Your task to perform on an android device: Go to accessibility settings Image 0: 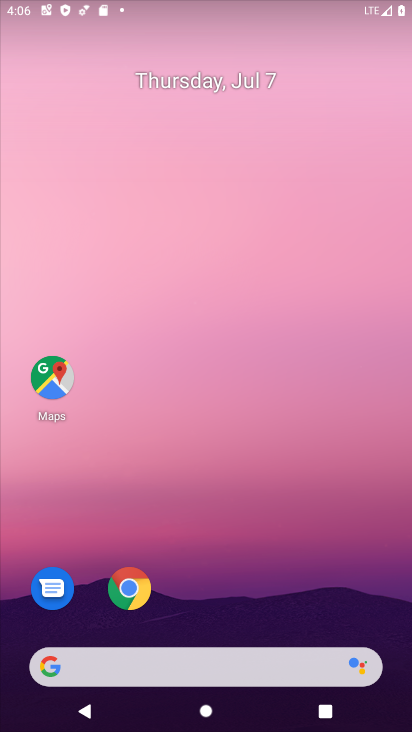
Step 0: press home button
Your task to perform on an android device: Go to accessibility settings Image 1: 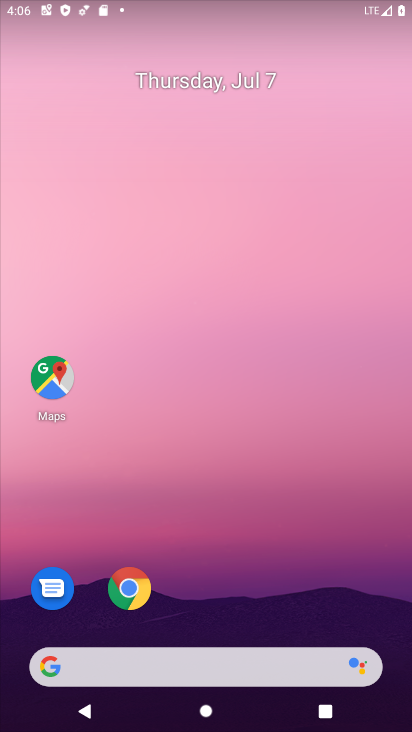
Step 1: drag from (265, 632) to (200, 122)
Your task to perform on an android device: Go to accessibility settings Image 2: 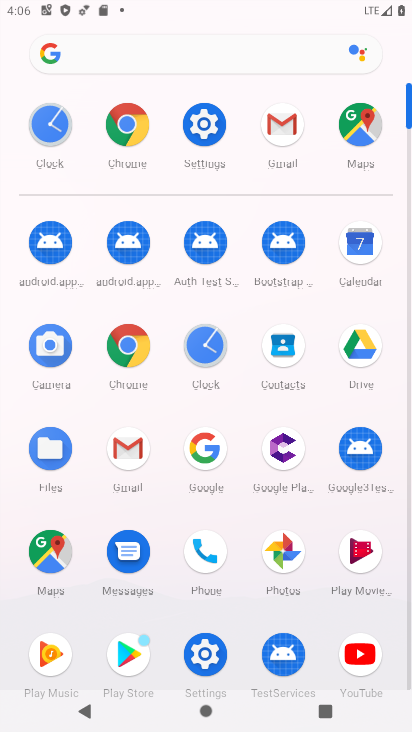
Step 2: click (205, 138)
Your task to perform on an android device: Go to accessibility settings Image 3: 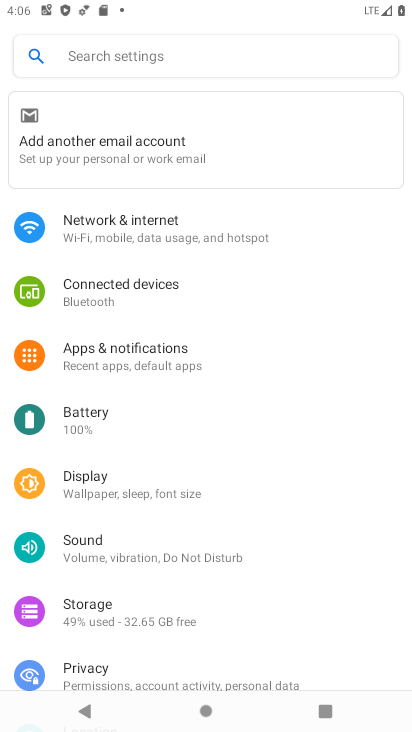
Step 3: drag from (217, 655) to (164, 222)
Your task to perform on an android device: Go to accessibility settings Image 4: 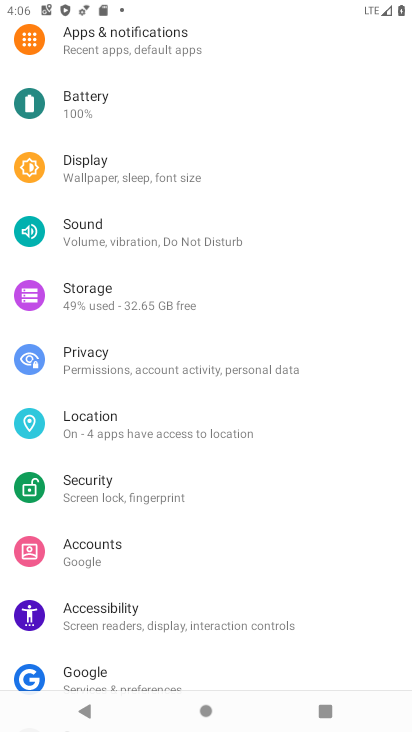
Step 4: click (89, 614)
Your task to perform on an android device: Go to accessibility settings Image 5: 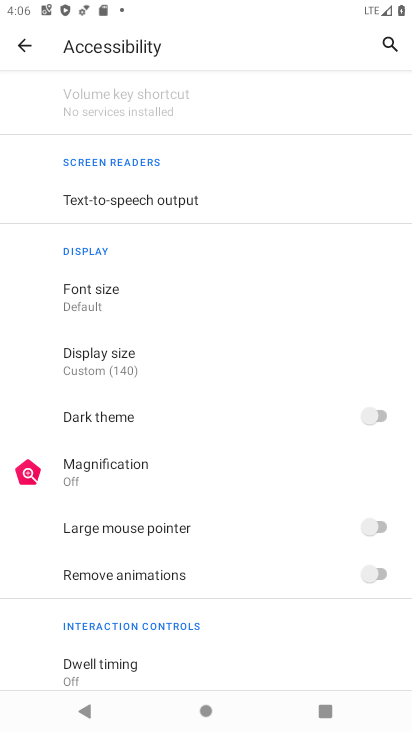
Step 5: task complete